Your task to perform on an android device: toggle location history Image 0: 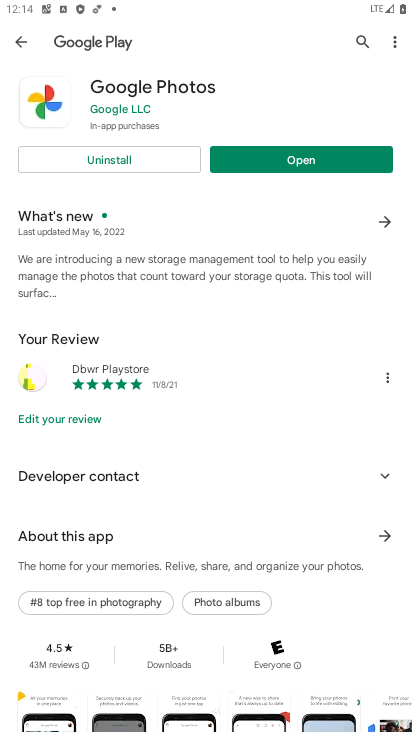
Step 0: press home button
Your task to perform on an android device: toggle location history Image 1: 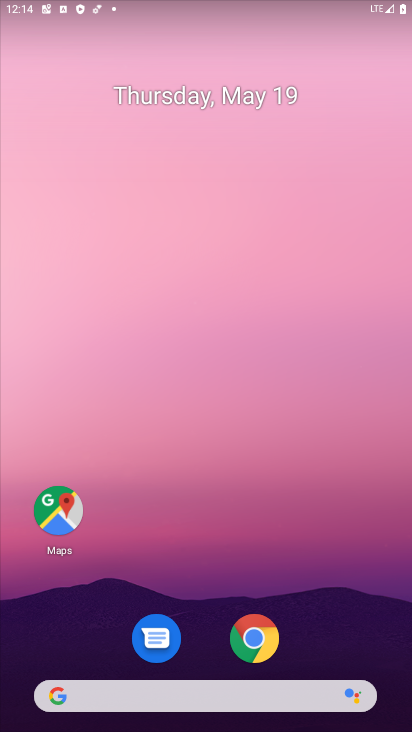
Step 1: drag from (345, 632) to (270, 138)
Your task to perform on an android device: toggle location history Image 2: 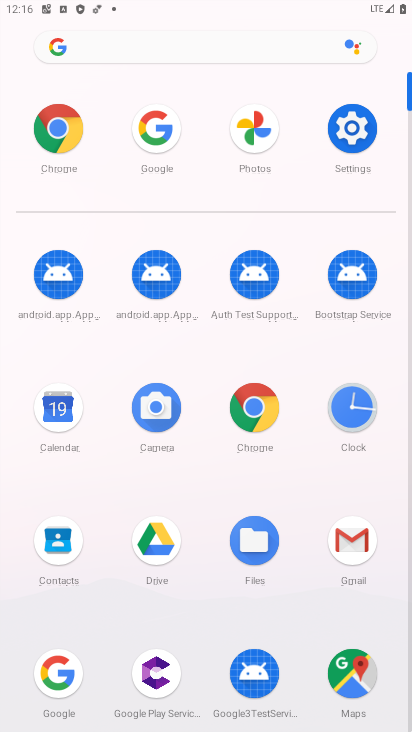
Step 2: click (370, 121)
Your task to perform on an android device: toggle location history Image 3: 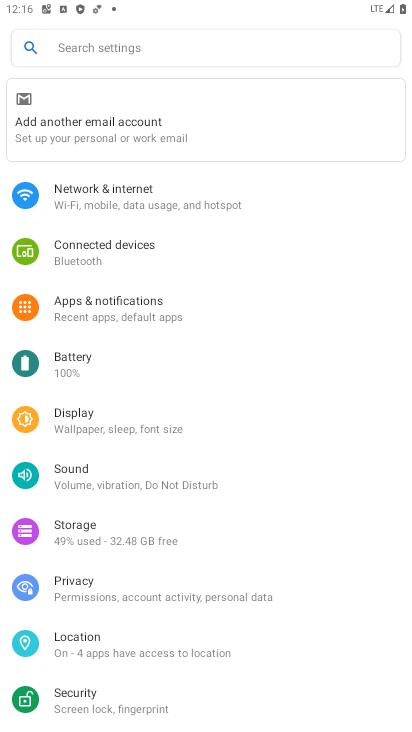
Step 3: click (133, 639)
Your task to perform on an android device: toggle location history Image 4: 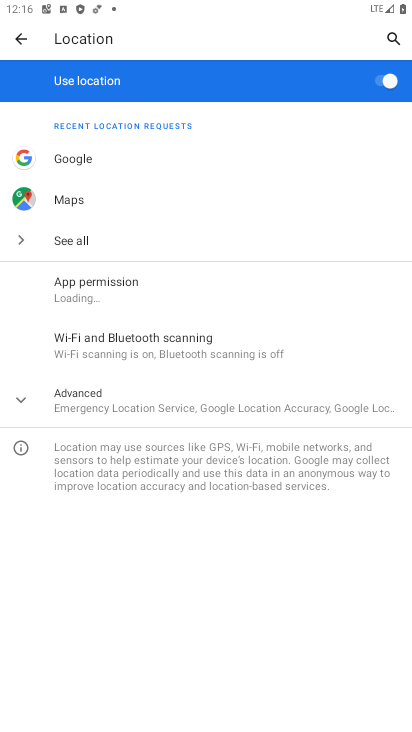
Step 4: click (104, 395)
Your task to perform on an android device: toggle location history Image 5: 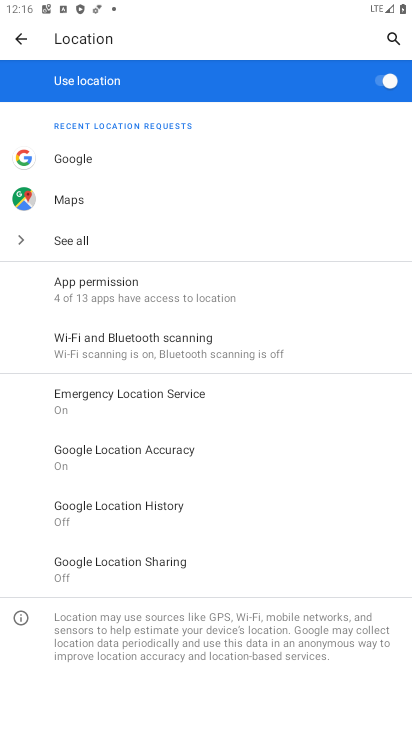
Step 5: click (180, 495)
Your task to perform on an android device: toggle location history Image 6: 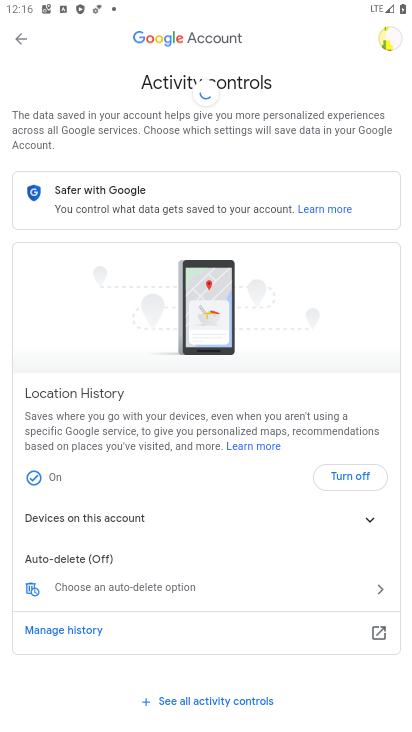
Step 6: click (361, 478)
Your task to perform on an android device: toggle location history Image 7: 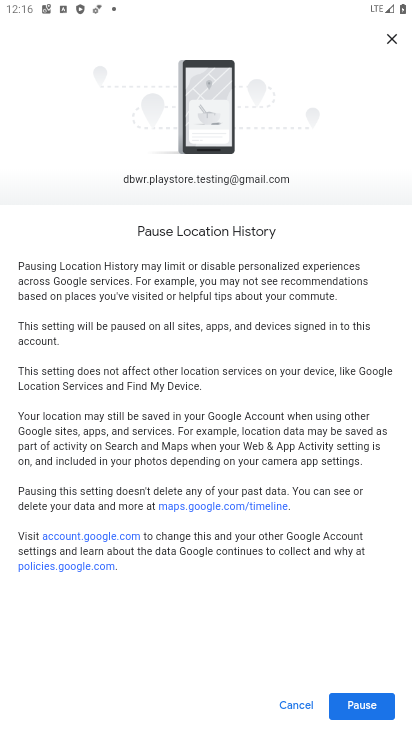
Step 7: task complete